Your task to perform on an android device: delete browsing data in the chrome app Image 0: 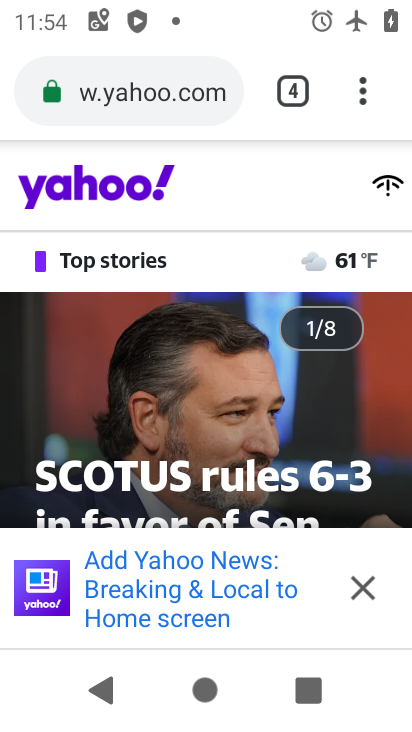
Step 0: click (358, 88)
Your task to perform on an android device: delete browsing data in the chrome app Image 1: 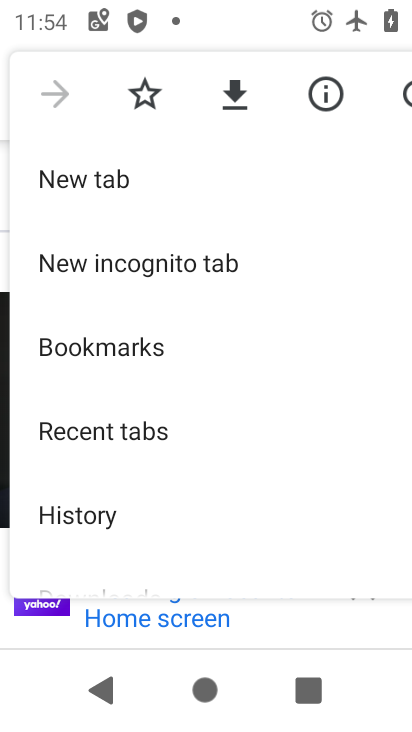
Step 1: drag from (194, 525) to (238, 236)
Your task to perform on an android device: delete browsing data in the chrome app Image 2: 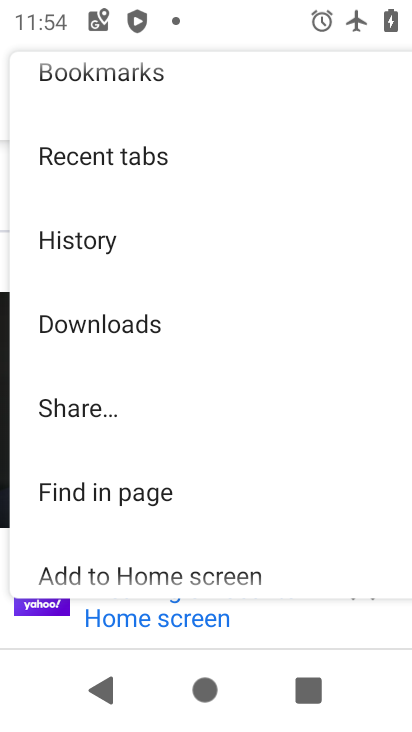
Step 2: drag from (153, 503) to (183, 311)
Your task to perform on an android device: delete browsing data in the chrome app Image 3: 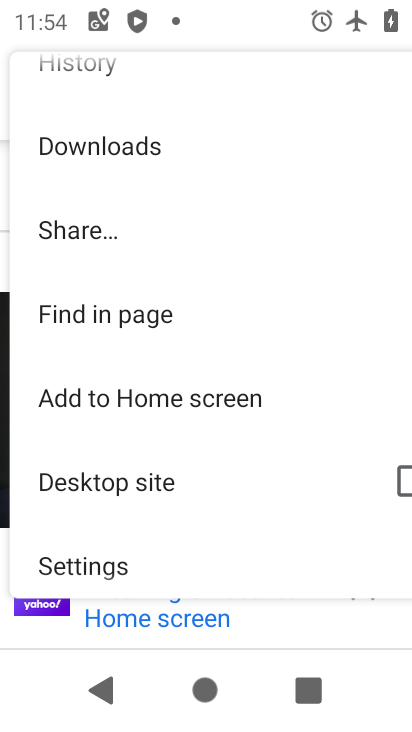
Step 3: drag from (120, 509) to (101, 579)
Your task to perform on an android device: delete browsing data in the chrome app Image 4: 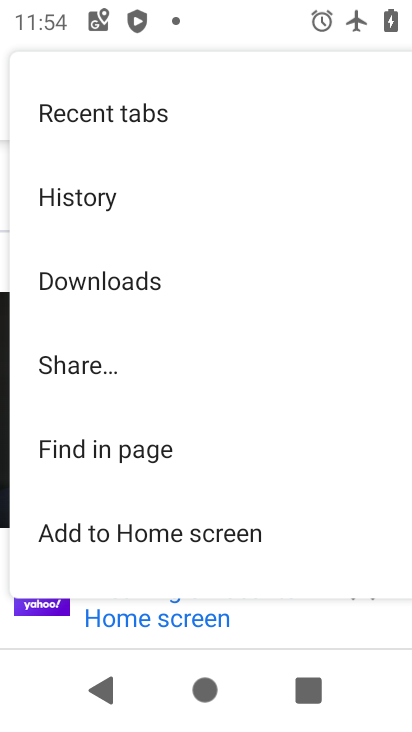
Step 4: click (95, 187)
Your task to perform on an android device: delete browsing data in the chrome app Image 5: 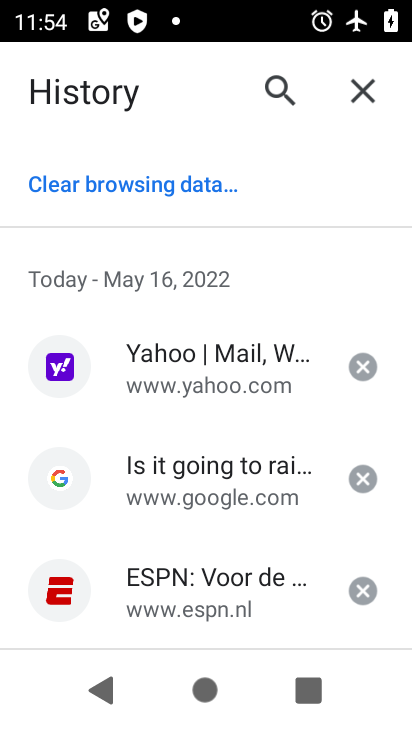
Step 5: click (89, 179)
Your task to perform on an android device: delete browsing data in the chrome app Image 6: 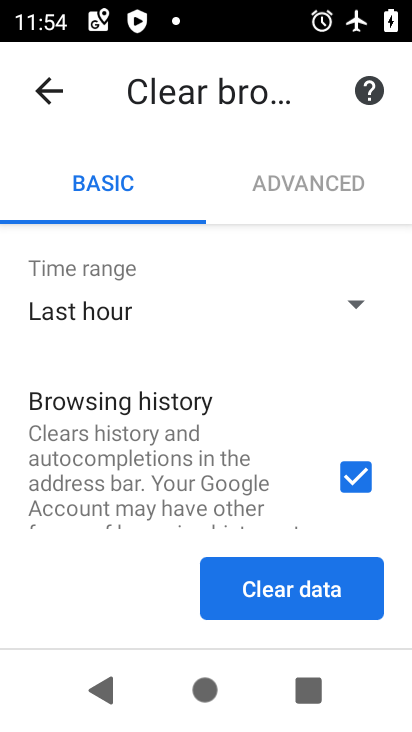
Step 6: drag from (250, 499) to (254, 322)
Your task to perform on an android device: delete browsing data in the chrome app Image 7: 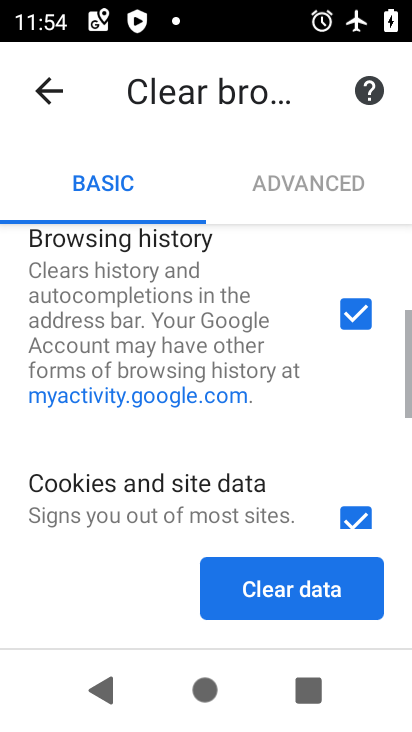
Step 7: click (247, 590)
Your task to perform on an android device: delete browsing data in the chrome app Image 8: 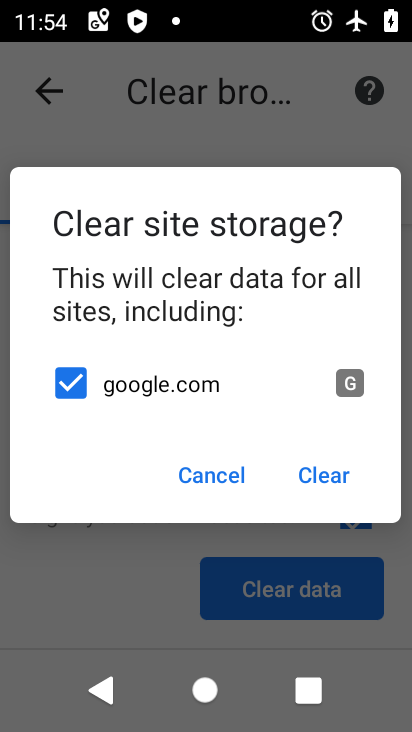
Step 8: click (312, 479)
Your task to perform on an android device: delete browsing data in the chrome app Image 9: 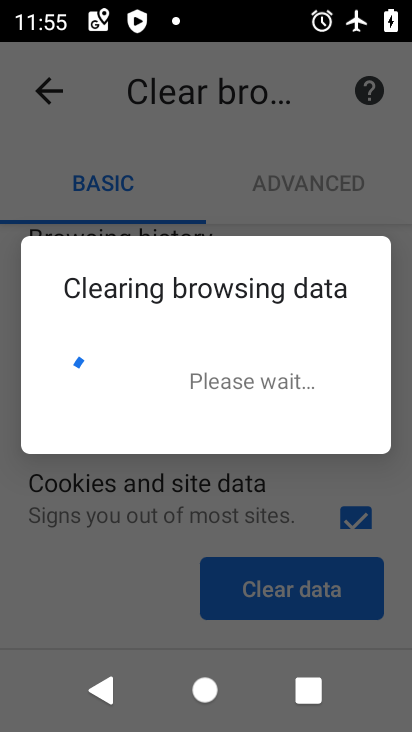
Step 9: click (293, 575)
Your task to perform on an android device: delete browsing data in the chrome app Image 10: 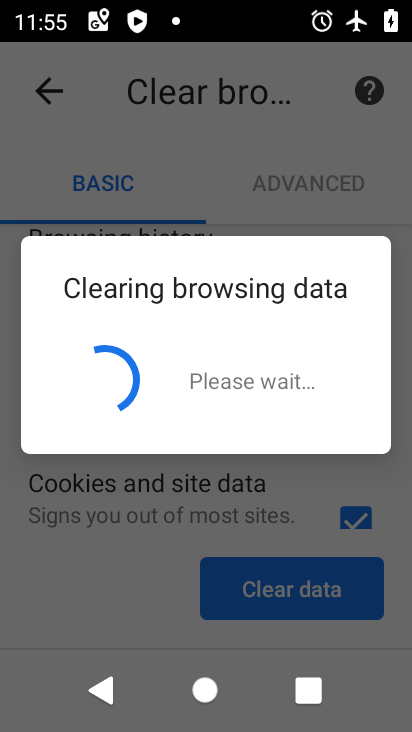
Step 10: click (293, 575)
Your task to perform on an android device: delete browsing data in the chrome app Image 11: 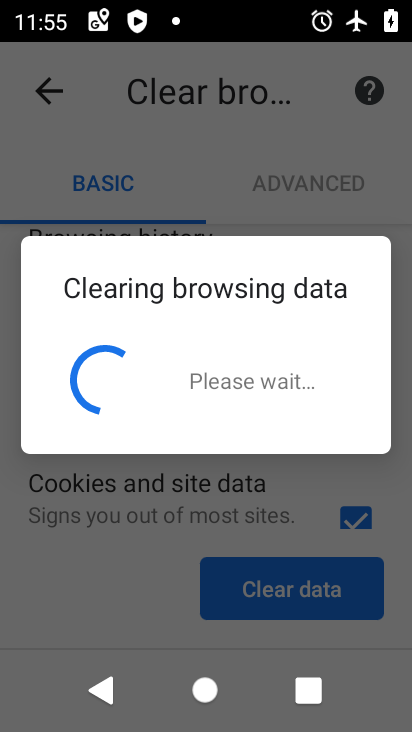
Step 11: click (296, 579)
Your task to perform on an android device: delete browsing data in the chrome app Image 12: 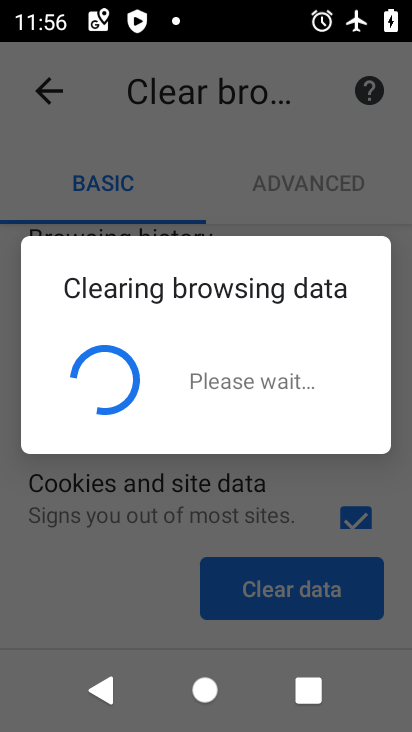
Step 12: task complete